Your task to perform on an android device: Open Reddit.com Image 0: 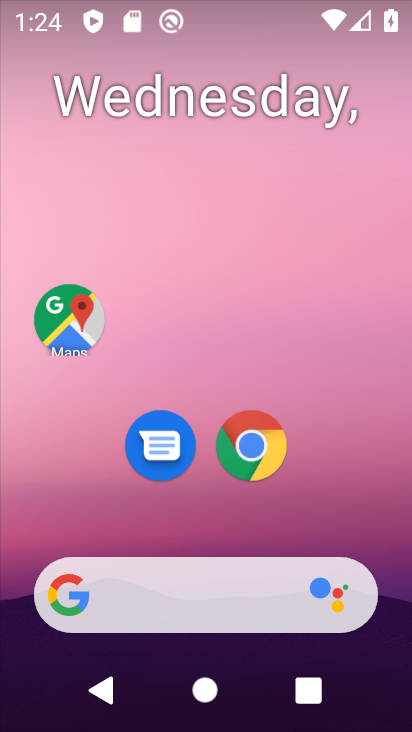
Step 0: click (131, 593)
Your task to perform on an android device: Open Reddit.com Image 1: 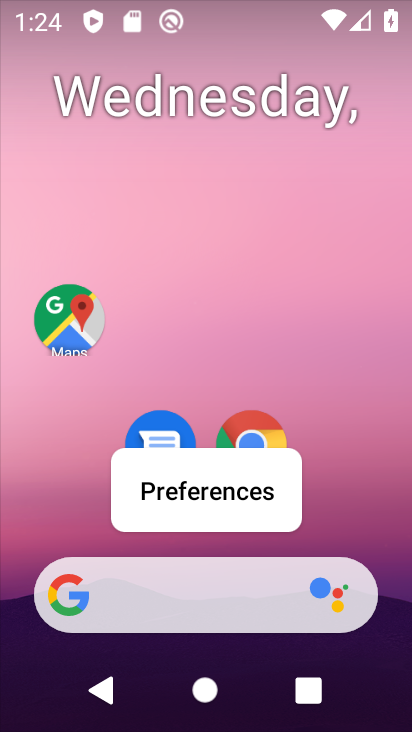
Step 1: click (131, 595)
Your task to perform on an android device: Open Reddit.com Image 2: 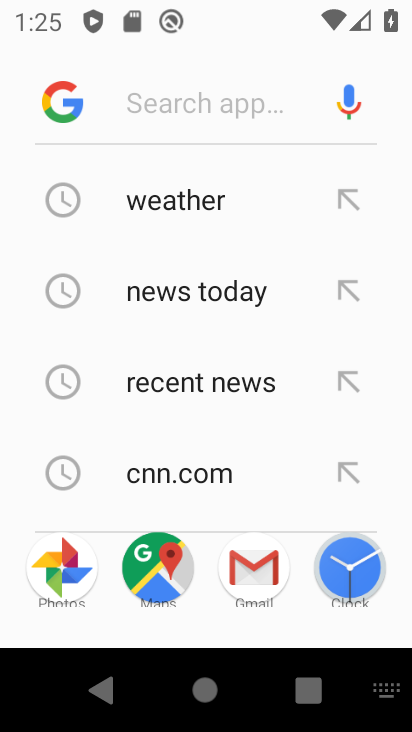
Step 2: type "reddit.com"
Your task to perform on an android device: Open Reddit.com Image 3: 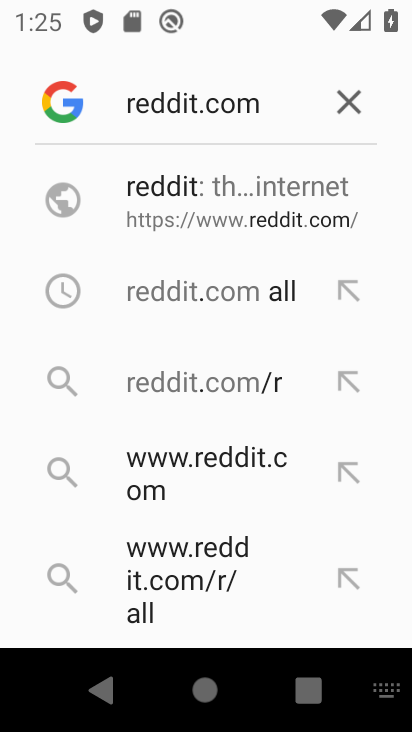
Step 3: click (205, 454)
Your task to perform on an android device: Open Reddit.com Image 4: 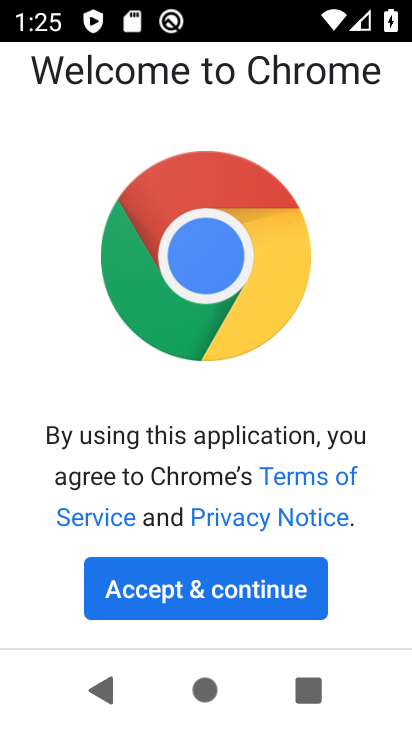
Step 4: click (231, 585)
Your task to perform on an android device: Open Reddit.com Image 5: 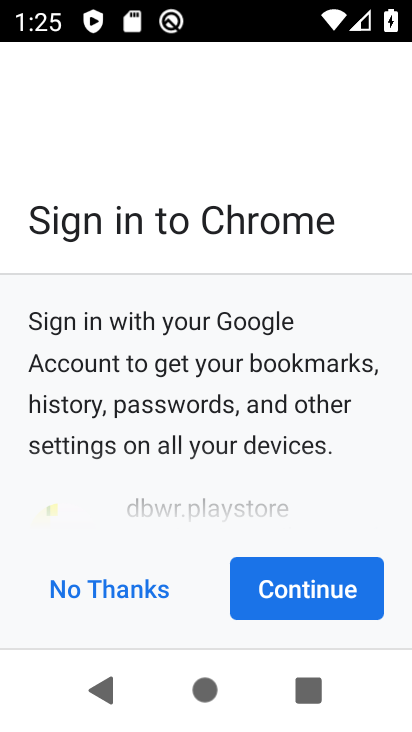
Step 5: click (276, 585)
Your task to perform on an android device: Open Reddit.com Image 6: 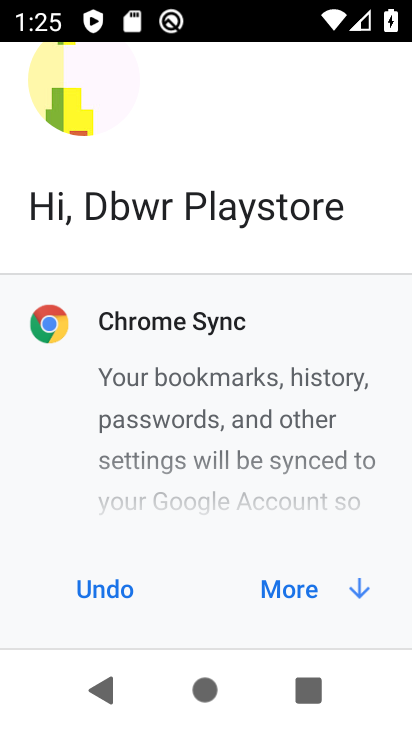
Step 6: click (276, 585)
Your task to perform on an android device: Open Reddit.com Image 7: 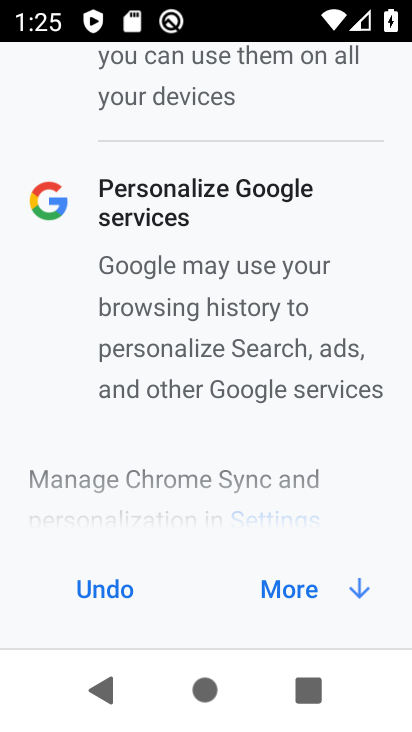
Step 7: click (276, 585)
Your task to perform on an android device: Open Reddit.com Image 8: 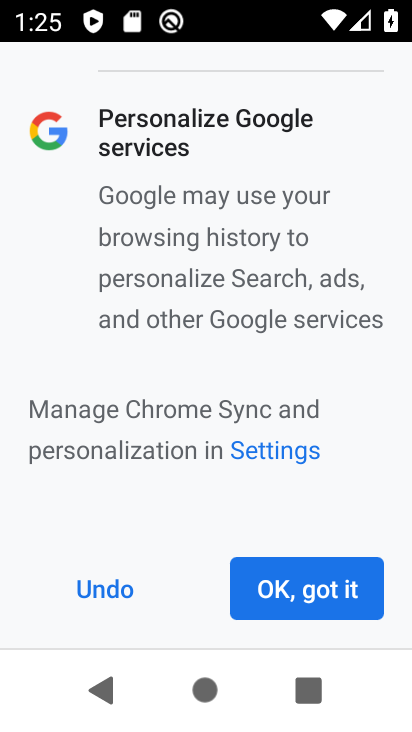
Step 8: click (276, 585)
Your task to perform on an android device: Open Reddit.com Image 9: 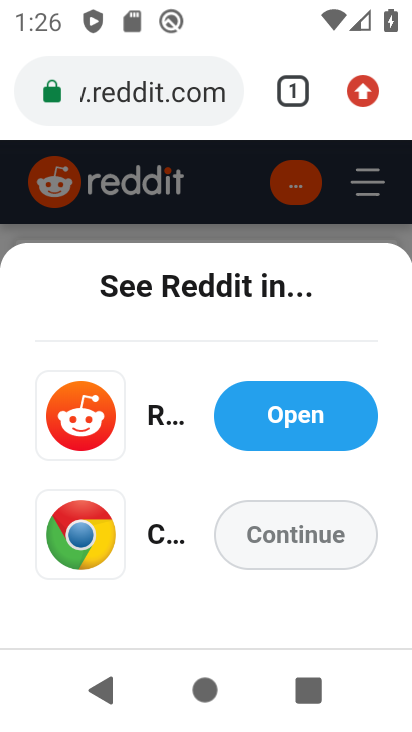
Step 9: task complete